Your task to perform on an android device: Toggle the flashlight Image 0: 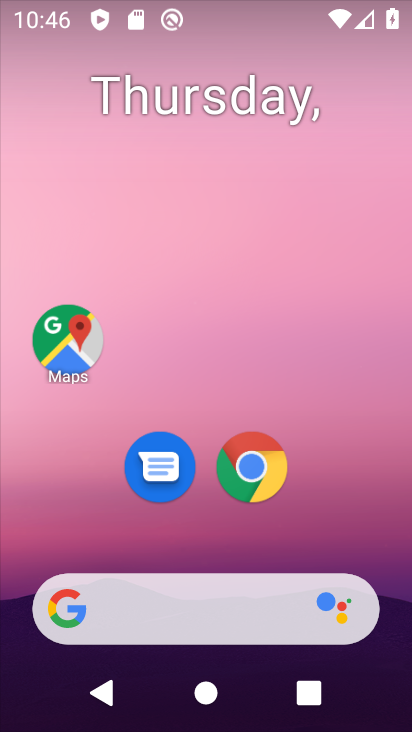
Step 0: drag from (212, 491) to (265, 225)
Your task to perform on an android device: Toggle the flashlight Image 1: 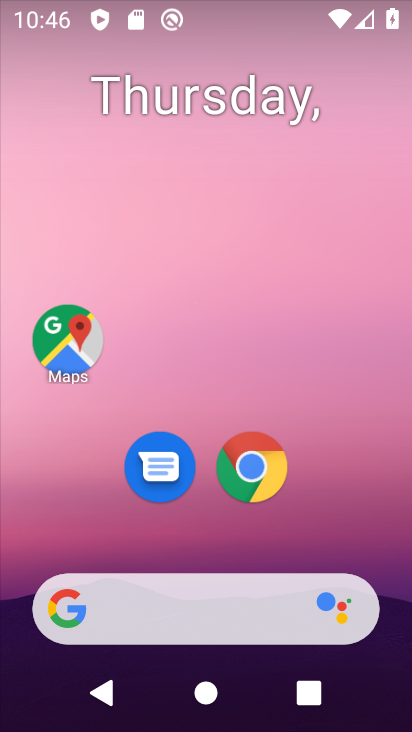
Step 1: drag from (232, 462) to (278, 251)
Your task to perform on an android device: Toggle the flashlight Image 2: 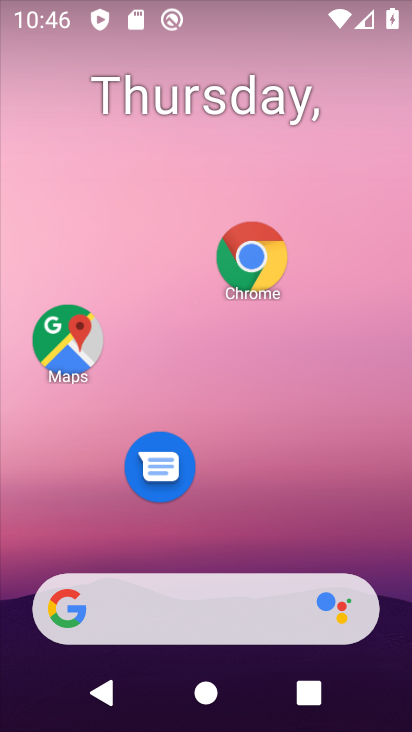
Step 2: drag from (239, 441) to (244, 81)
Your task to perform on an android device: Toggle the flashlight Image 3: 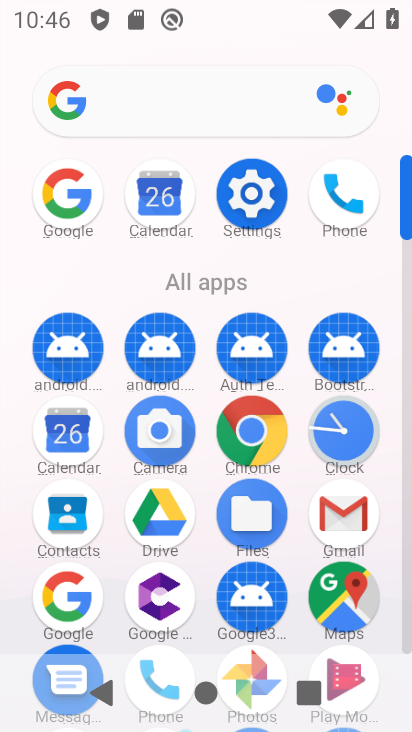
Step 3: click (251, 189)
Your task to perform on an android device: Toggle the flashlight Image 4: 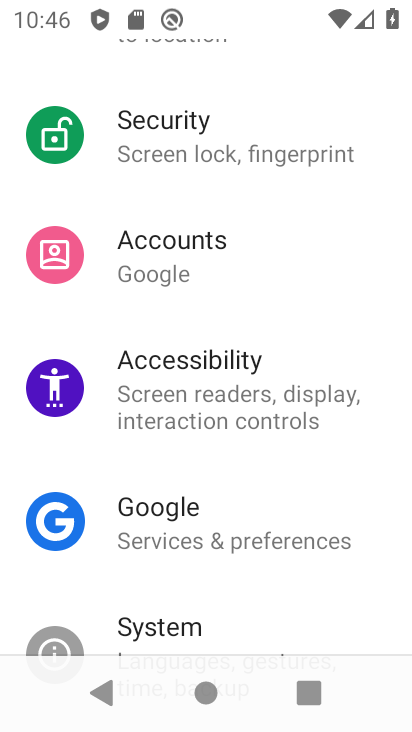
Step 4: drag from (223, 217) to (227, 621)
Your task to perform on an android device: Toggle the flashlight Image 5: 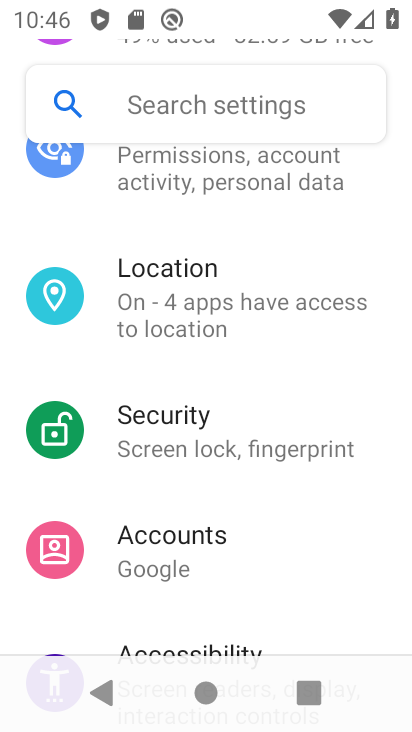
Step 5: drag from (194, 220) to (218, 666)
Your task to perform on an android device: Toggle the flashlight Image 6: 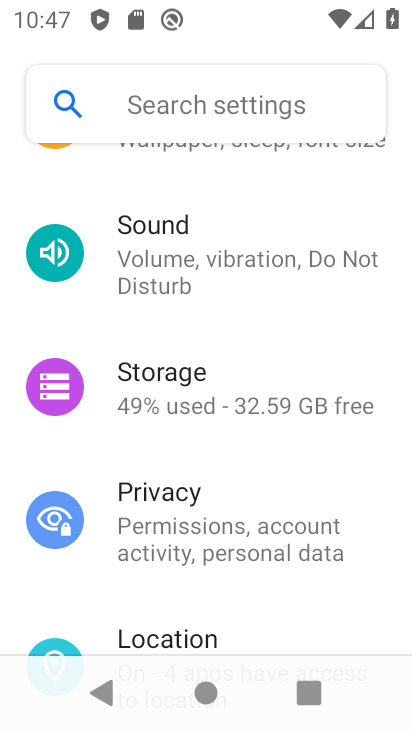
Step 6: click (181, 532)
Your task to perform on an android device: Toggle the flashlight Image 7: 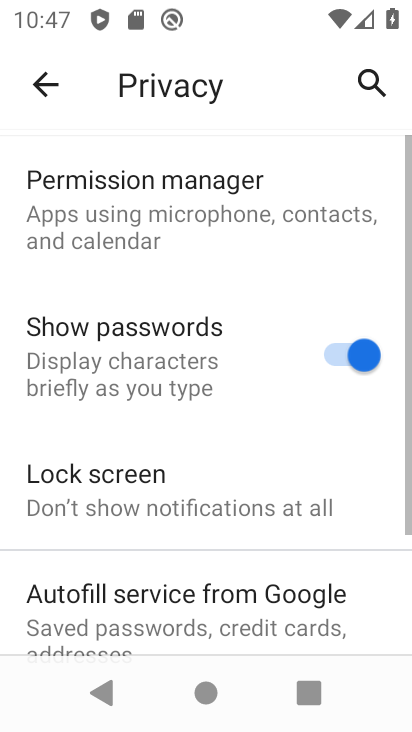
Step 7: task complete